Your task to perform on an android device: Go to calendar. Show me events next week Image 0: 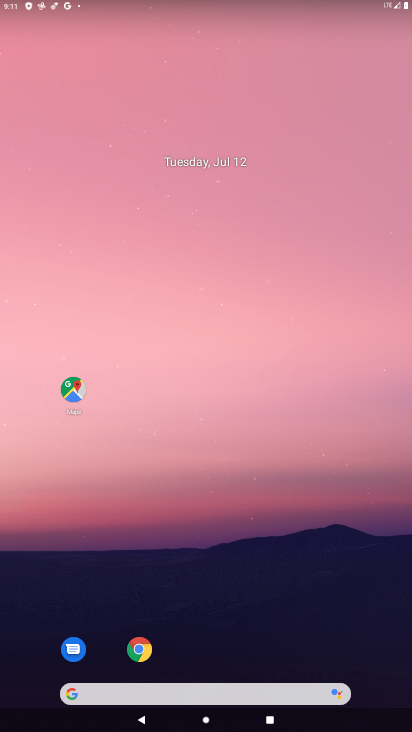
Step 0: drag from (321, 624) to (317, 390)
Your task to perform on an android device: Go to calendar. Show me events next week Image 1: 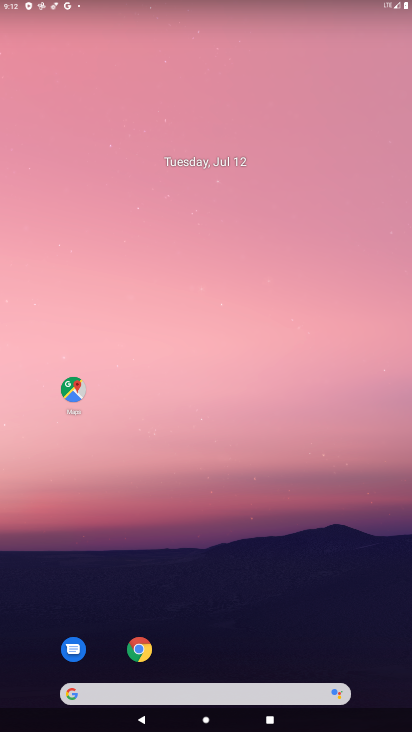
Step 1: drag from (263, 631) to (277, 288)
Your task to perform on an android device: Go to calendar. Show me events next week Image 2: 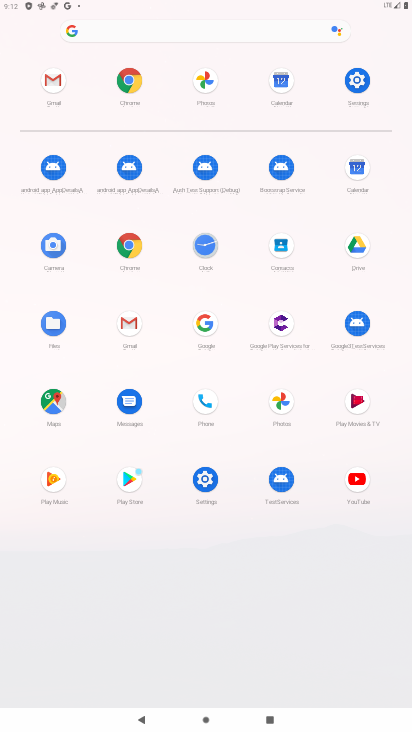
Step 2: click (375, 94)
Your task to perform on an android device: Go to calendar. Show me events next week Image 3: 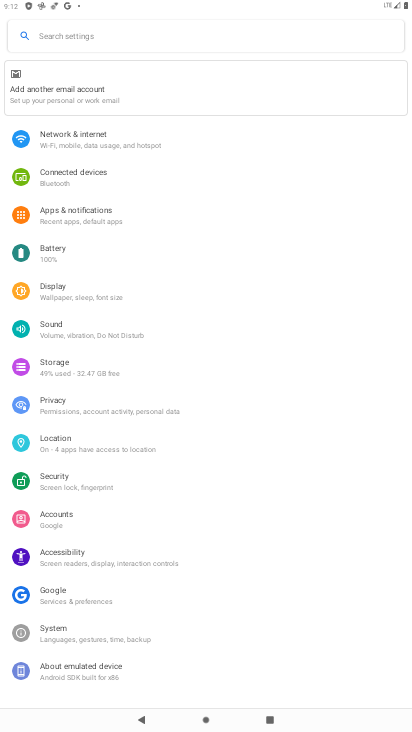
Step 3: press back button
Your task to perform on an android device: Go to calendar. Show me events next week Image 4: 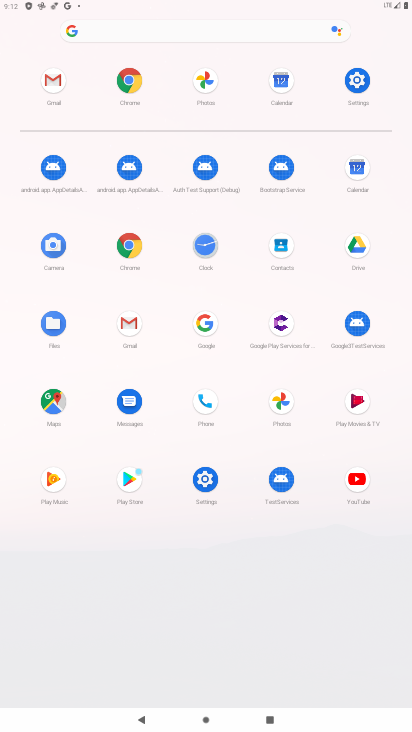
Step 4: click (270, 94)
Your task to perform on an android device: Go to calendar. Show me events next week Image 5: 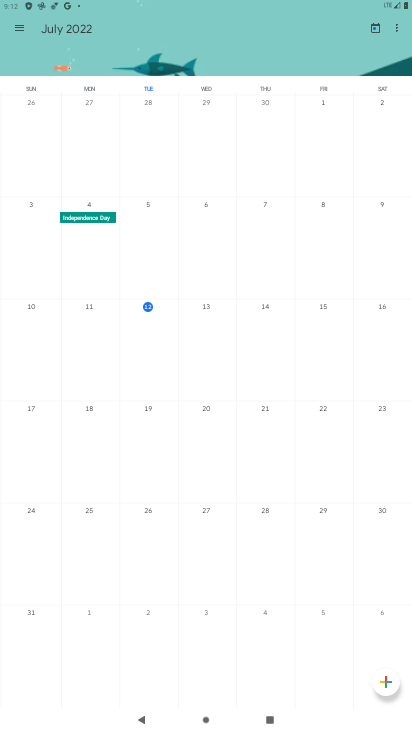
Step 5: task complete